Your task to perform on an android device: Open settings on Google Maps Image 0: 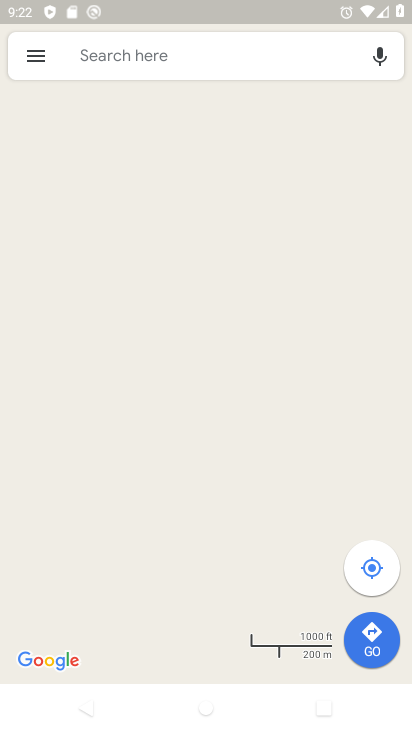
Step 0: press home button
Your task to perform on an android device: Open settings on Google Maps Image 1: 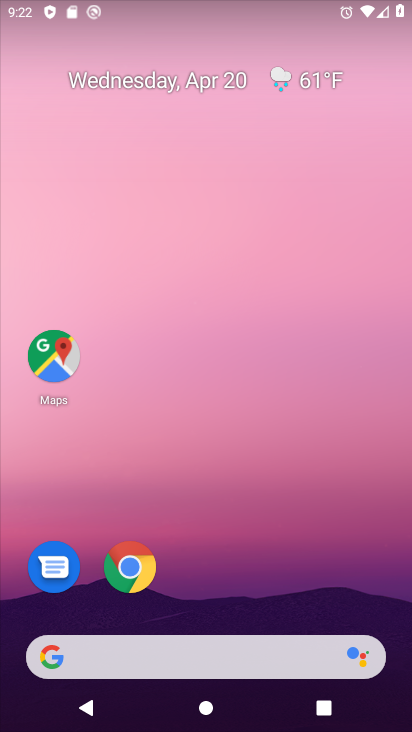
Step 1: click (36, 352)
Your task to perform on an android device: Open settings on Google Maps Image 2: 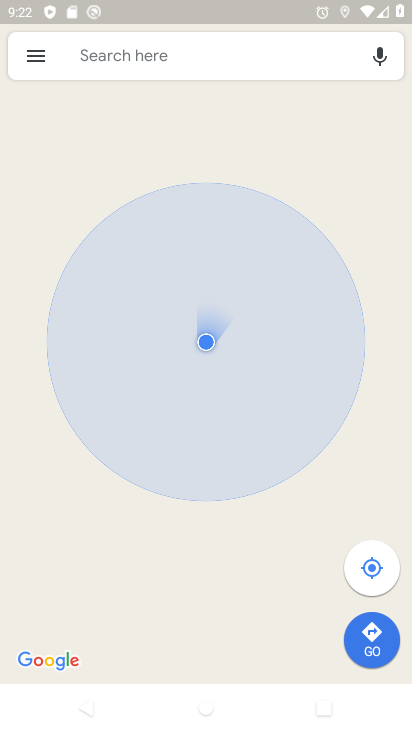
Step 2: click (40, 64)
Your task to perform on an android device: Open settings on Google Maps Image 3: 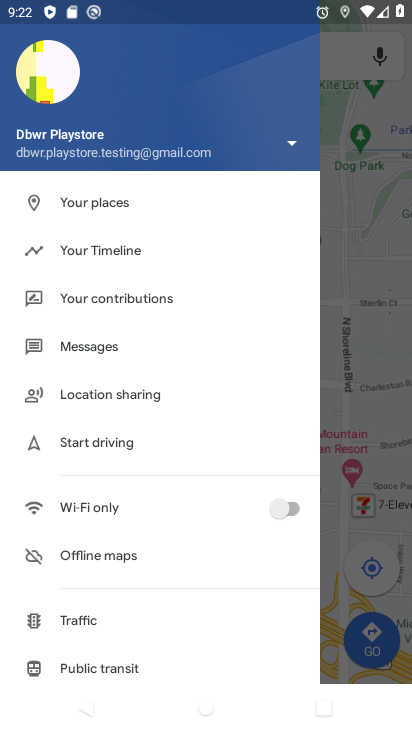
Step 3: drag from (127, 566) to (166, 301)
Your task to perform on an android device: Open settings on Google Maps Image 4: 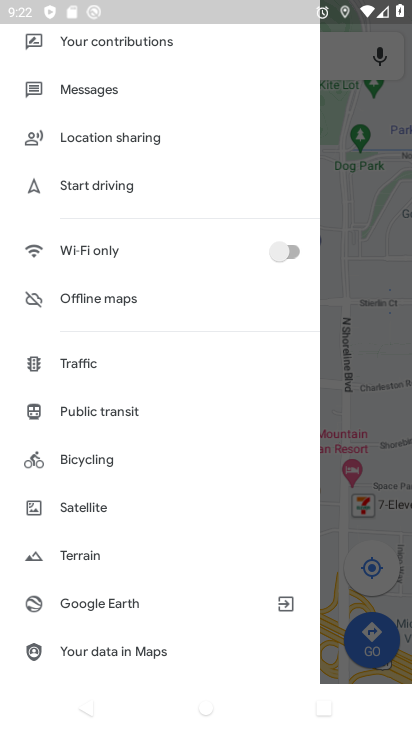
Step 4: drag from (112, 603) to (143, 261)
Your task to perform on an android device: Open settings on Google Maps Image 5: 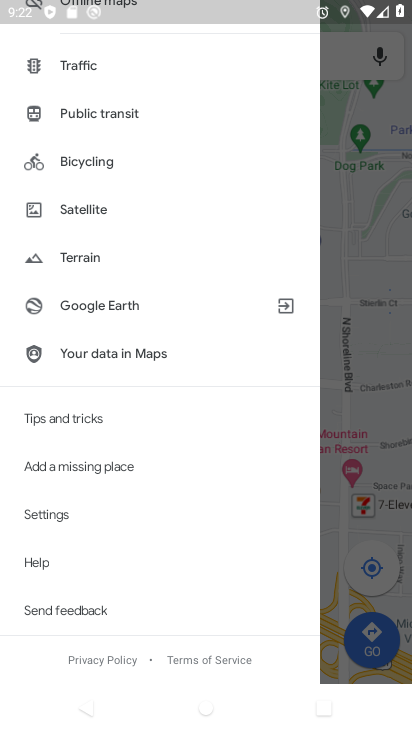
Step 5: click (65, 512)
Your task to perform on an android device: Open settings on Google Maps Image 6: 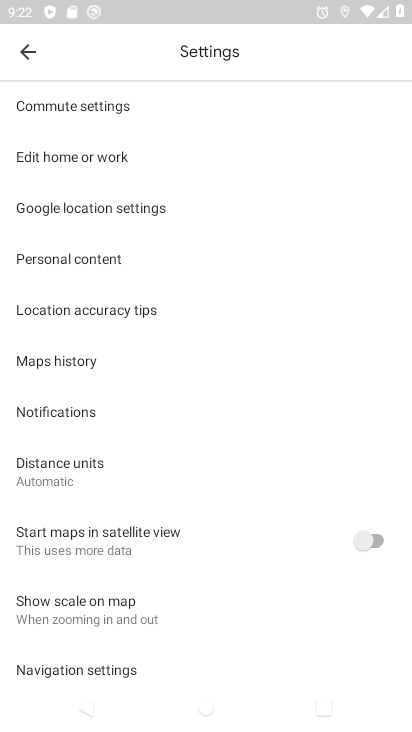
Step 6: task complete